Your task to perform on an android device: Search for logitech g pro on target, select the first entry, and add it to the cart. Image 0: 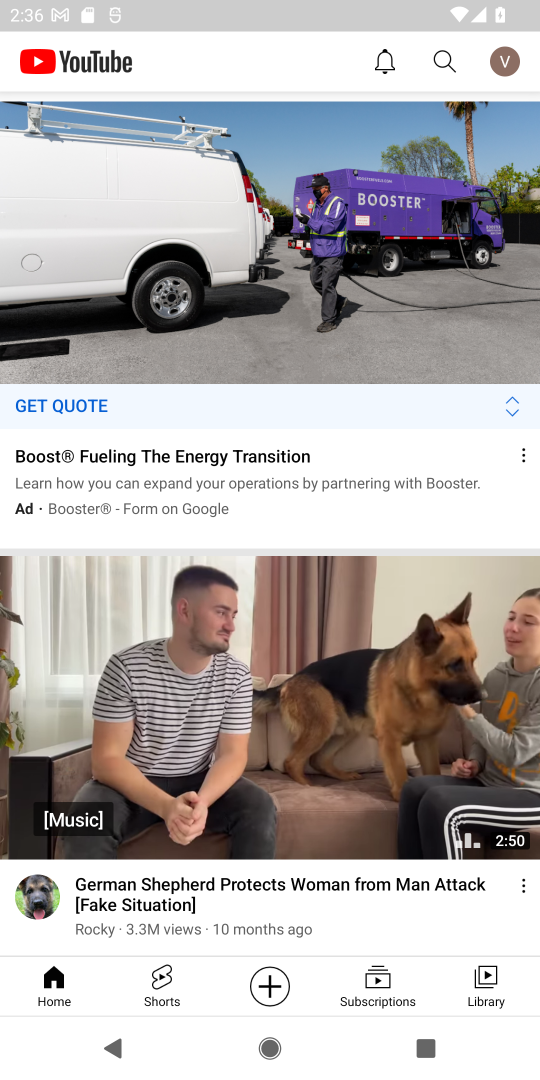
Step 0: press home button
Your task to perform on an android device: Search for logitech g pro on target, select the first entry, and add it to the cart. Image 1: 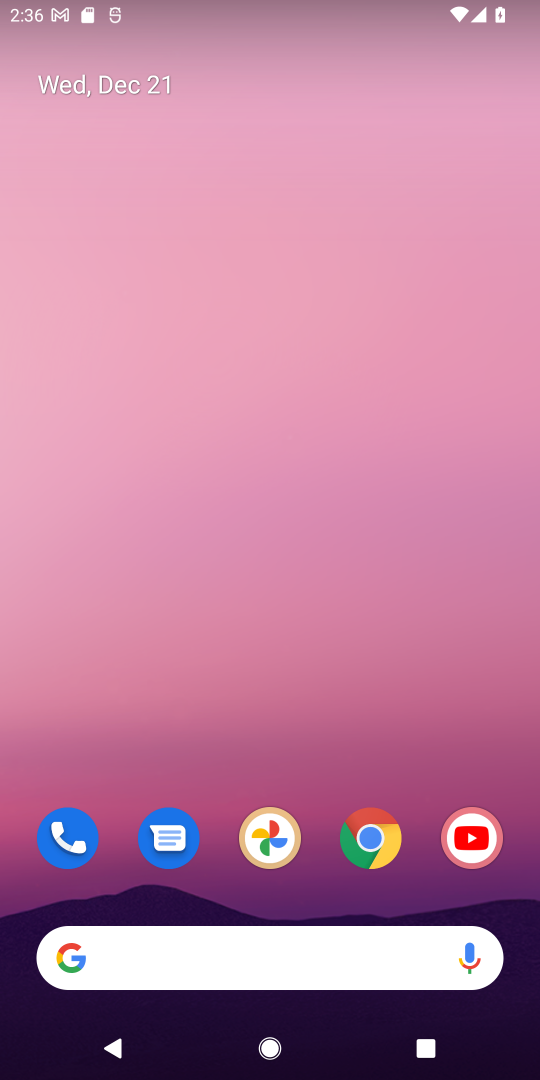
Step 1: click (377, 857)
Your task to perform on an android device: Search for logitech g pro on target, select the first entry, and add it to the cart. Image 2: 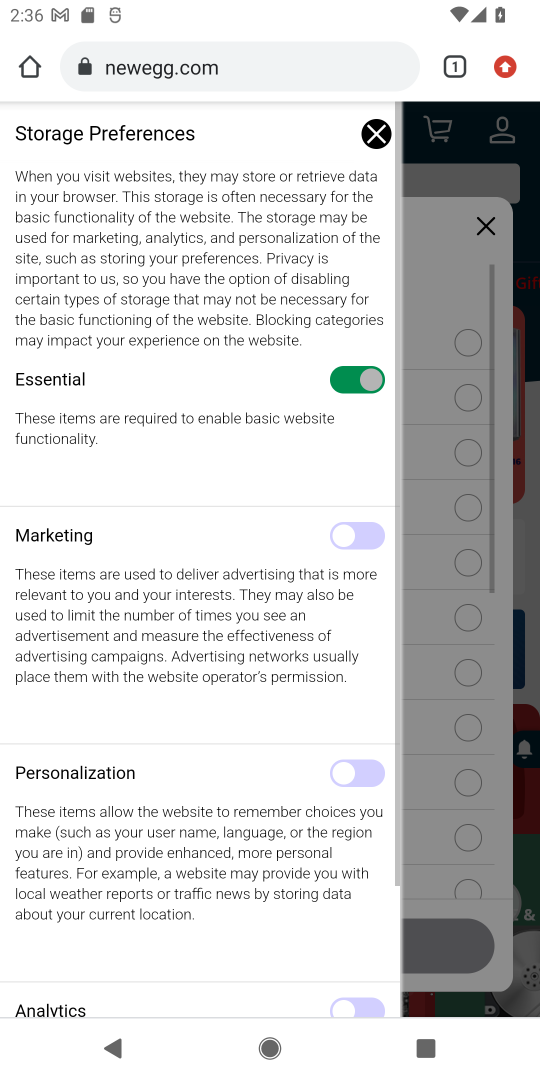
Step 2: click (241, 65)
Your task to perform on an android device: Search for logitech g pro on target, select the first entry, and add it to the cart. Image 3: 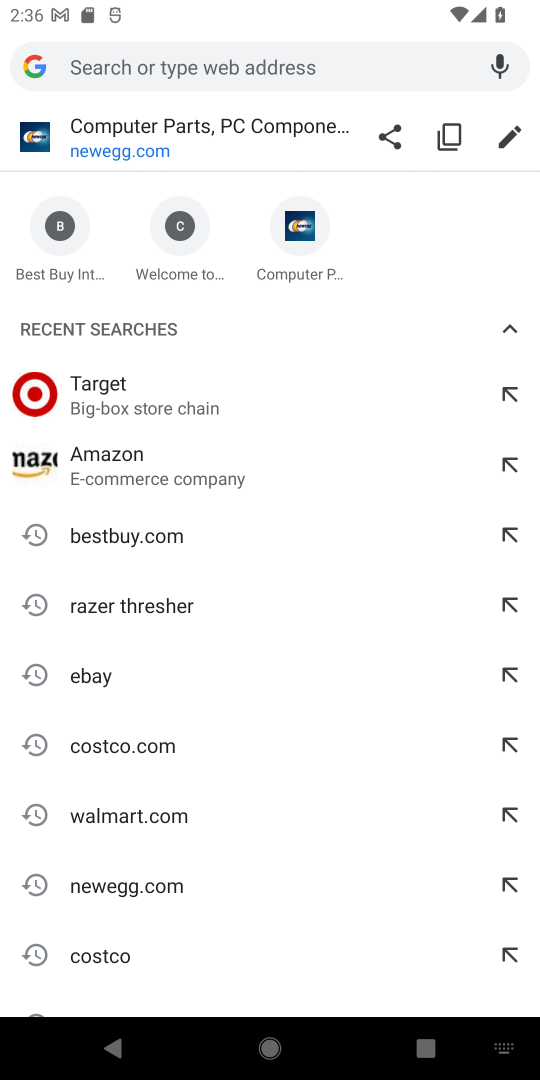
Step 3: click (206, 408)
Your task to perform on an android device: Search for logitech g pro on target, select the first entry, and add it to the cart. Image 4: 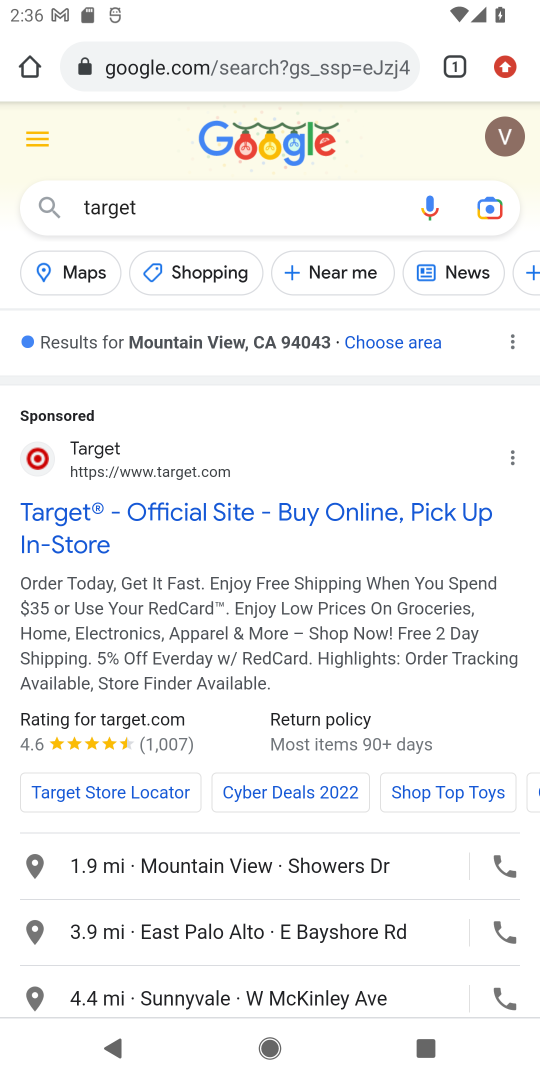
Step 4: click (48, 544)
Your task to perform on an android device: Search for logitech g pro on target, select the first entry, and add it to the cart. Image 5: 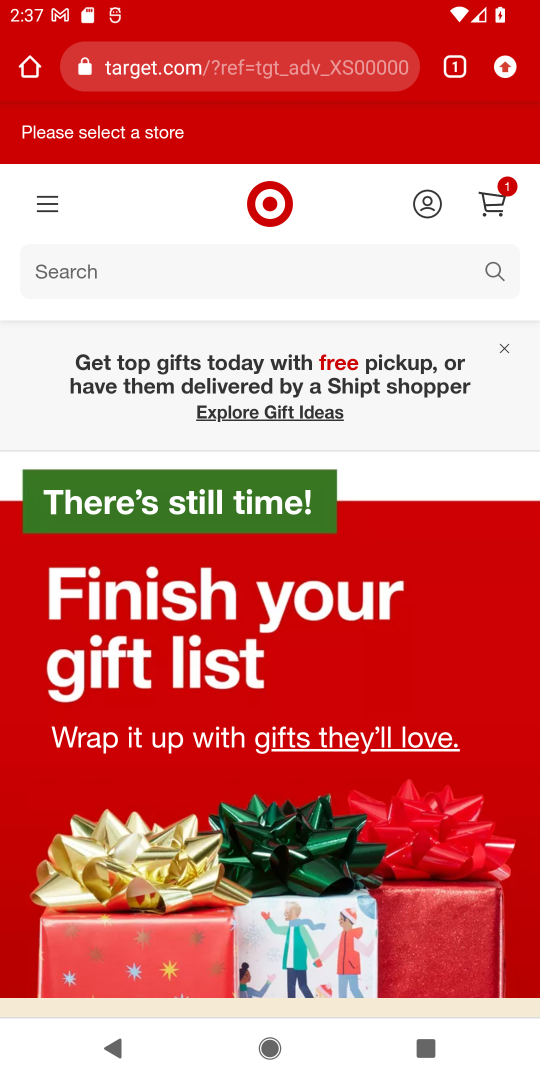
Step 5: task complete